Your task to perform on an android device: Open privacy settings Image 0: 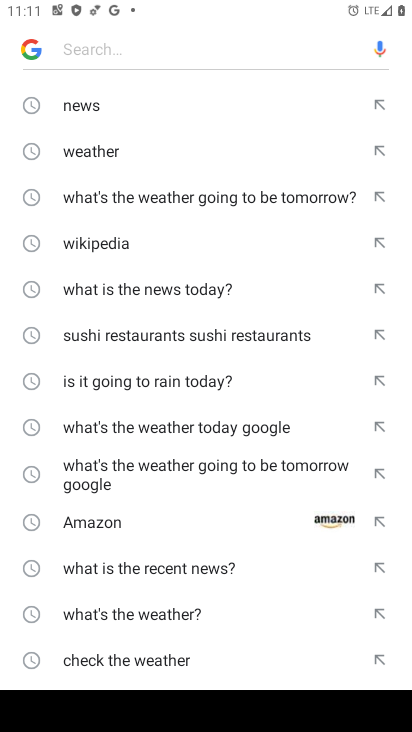
Step 0: press home button
Your task to perform on an android device: Open privacy settings Image 1: 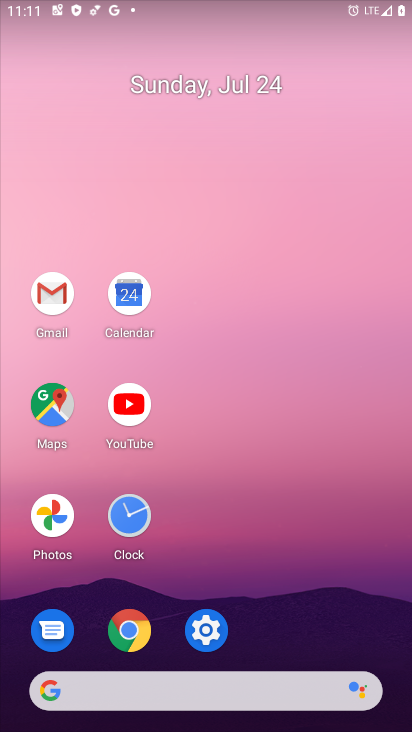
Step 1: click (200, 630)
Your task to perform on an android device: Open privacy settings Image 2: 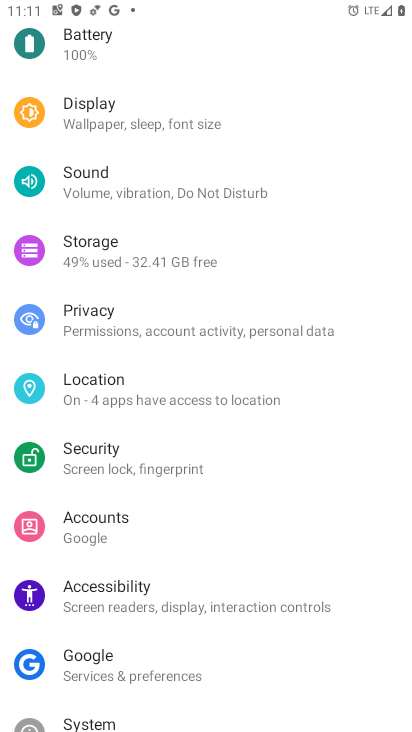
Step 2: click (82, 312)
Your task to perform on an android device: Open privacy settings Image 3: 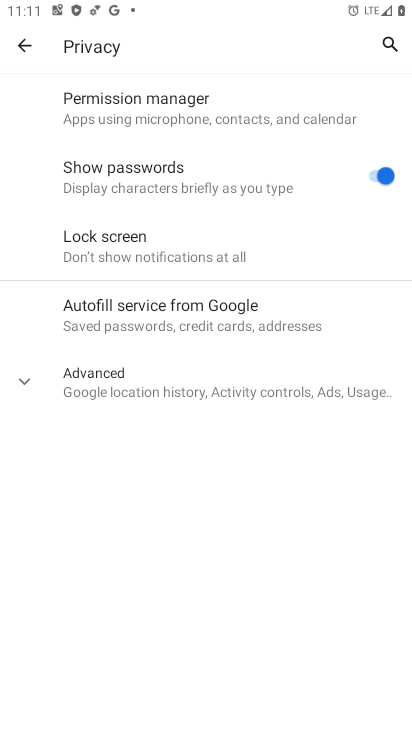
Step 3: task complete